Your task to perform on an android device: open a bookmark in the chrome app Image 0: 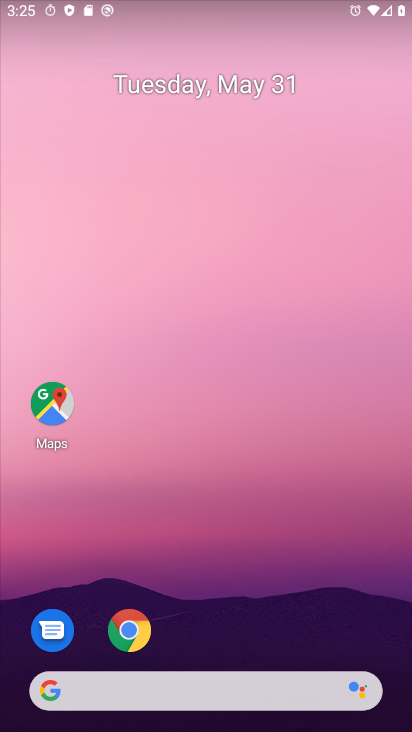
Step 0: drag from (278, 691) to (180, 6)
Your task to perform on an android device: open a bookmark in the chrome app Image 1: 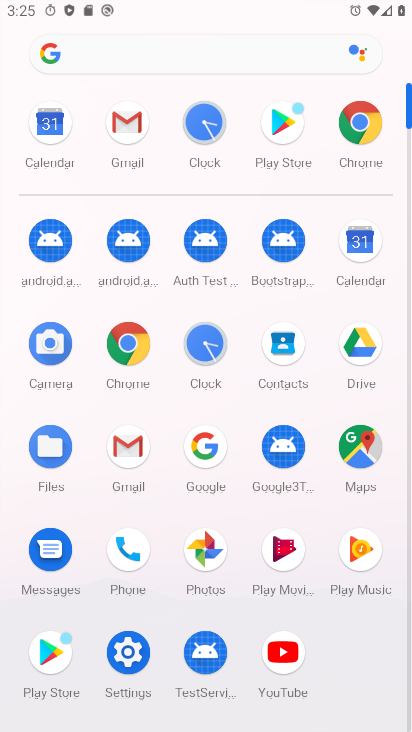
Step 1: click (120, 337)
Your task to perform on an android device: open a bookmark in the chrome app Image 2: 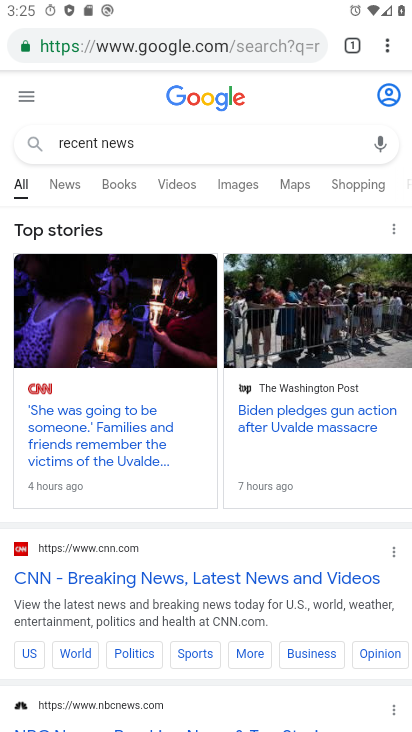
Step 2: task complete